Your task to perform on an android device: View the shopping cart on ebay. Search for dell alienware on ebay, select the first entry, and add it to the cart. Image 0: 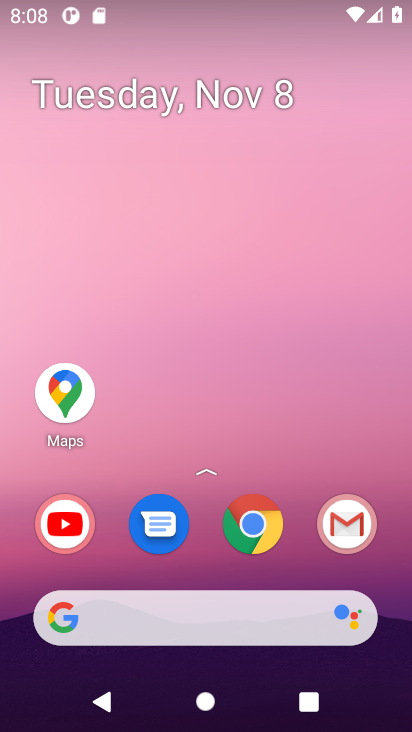
Step 0: click (272, 529)
Your task to perform on an android device: View the shopping cart on ebay. Search for dell alienware on ebay, select the first entry, and add it to the cart. Image 1: 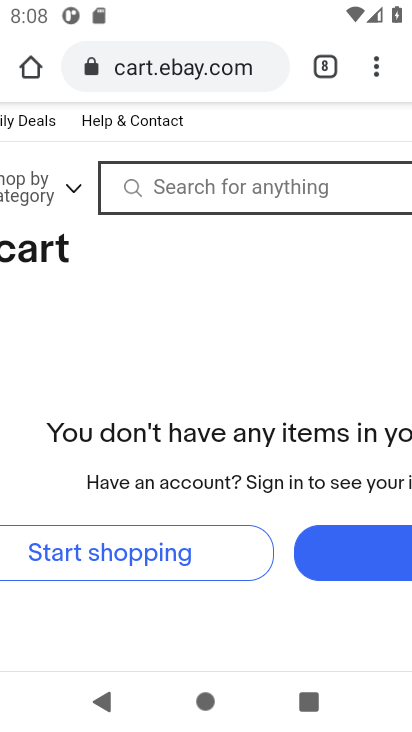
Step 1: click (279, 188)
Your task to perform on an android device: View the shopping cart on ebay. Search for dell alienware on ebay, select the first entry, and add it to the cart. Image 2: 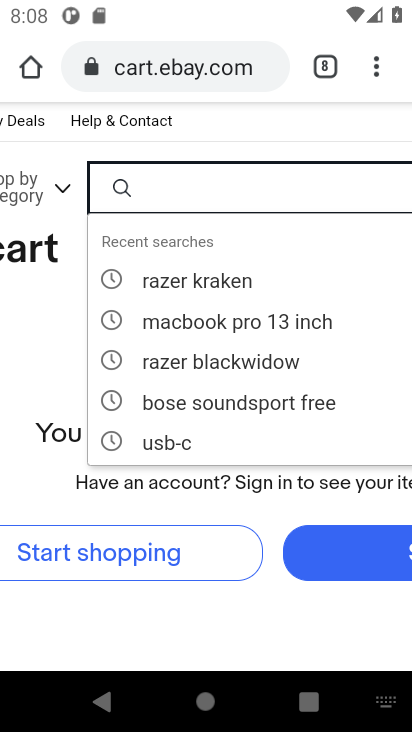
Step 2: type "dell alienware "
Your task to perform on an android device: View the shopping cart on ebay. Search for dell alienware on ebay, select the first entry, and add it to the cart. Image 3: 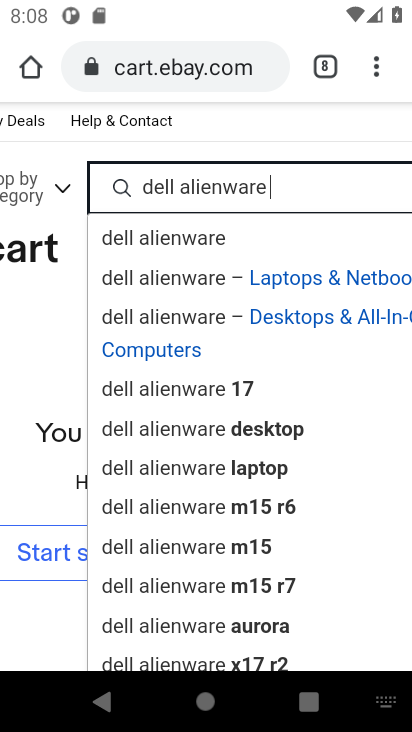
Step 3: click (219, 245)
Your task to perform on an android device: View the shopping cart on ebay. Search for dell alienware on ebay, select the first entry, and add it to the cart. Image 4: 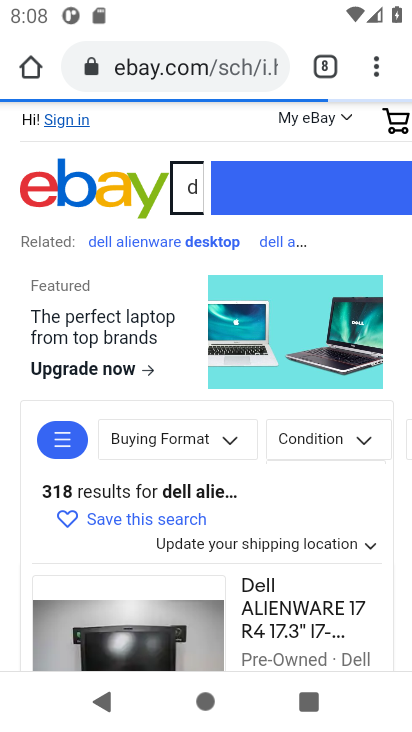
Step 4: drag from (154, 564) to (176, 230)
Your task to perform on an android device: View the shopping cart on ebay. Search for dell alienware on ebay, select the first entry, and add it to the cart. Image 5: 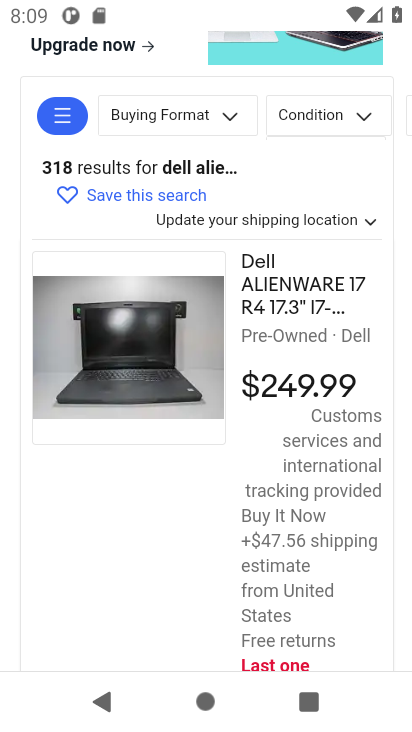
Step 5: drag from (182, 525) to (184, 315)
Your task to perform on an android device: View the shopping cart on ebay. Search for dell alienware on ebay, select the first entry, and add it to the cart. Image 6: 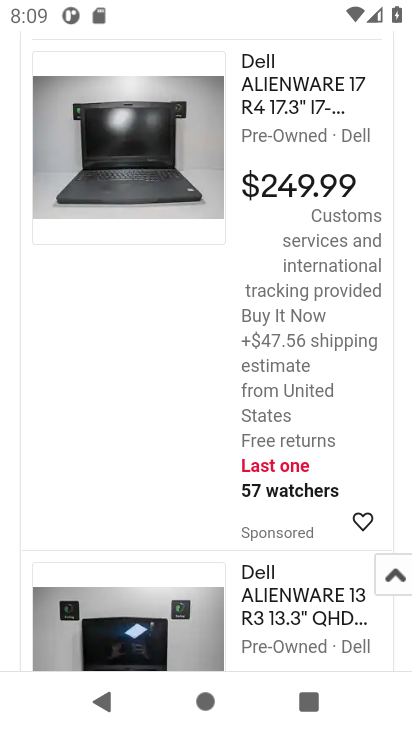
Step 6: drag from (282, 370) to (132, 361)
Your task to perform on an android device: View the shopping cart on ebay. Search for dell alienware on ebay, select the first entry, and add it to the cart. Image 7: 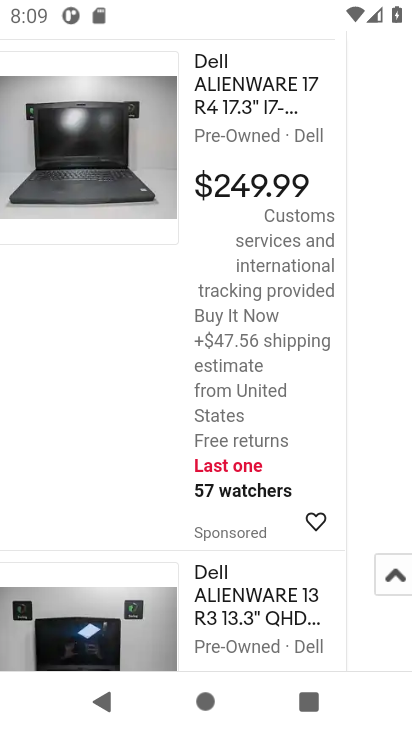
Step 7: click (149, 195)
Your task to perform on an android device: View the shopping cart on ebay. Search for dell alienware on ebay, select the first entry, and add it to the cart. Image 8: 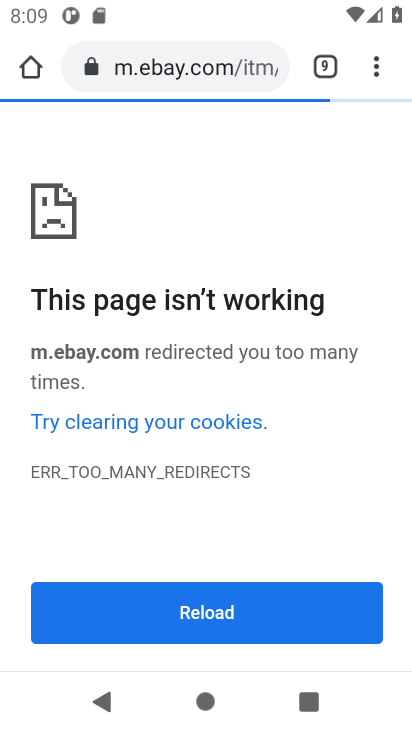
Step 8: task complete